Your task to perform on an android device: Open eBay Image 0: 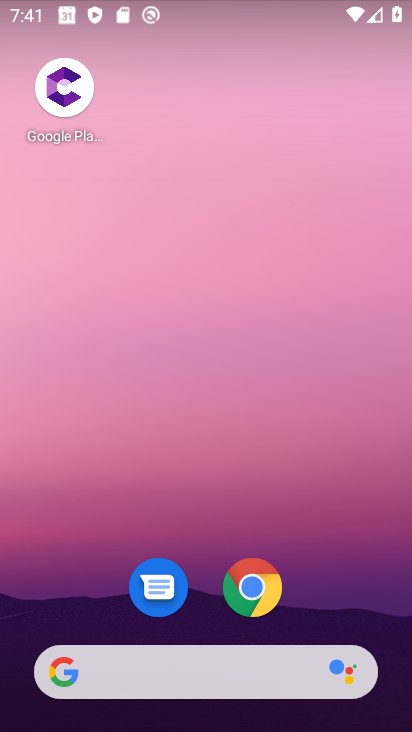
Step 0: drag from (355, 595) to (233, 0)
Your task to perform on an android device: Open eBay Image 1: 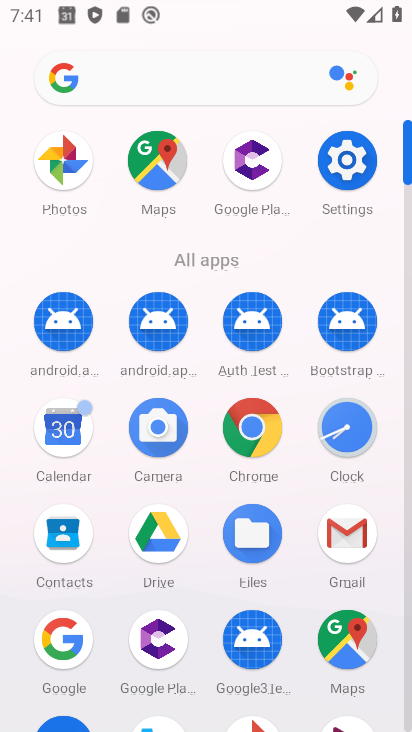
Step 1: drag from (16, 576) to (8, 228)
Your task to perform on an android device: Open eBay Image 2: 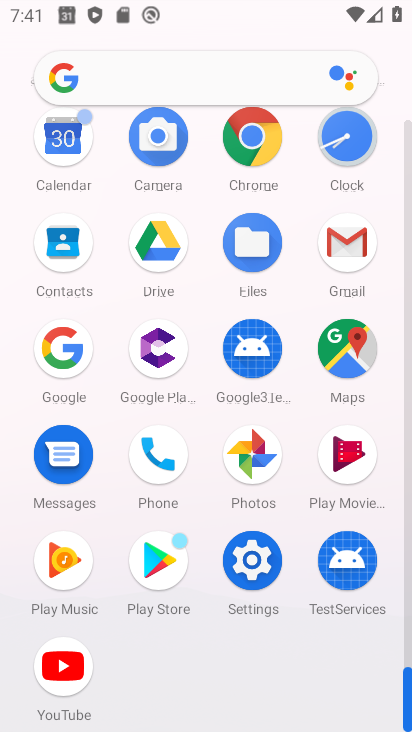
Step 2: click (251, 135)
Your task to perform on an android device: Open eBay Image 3: 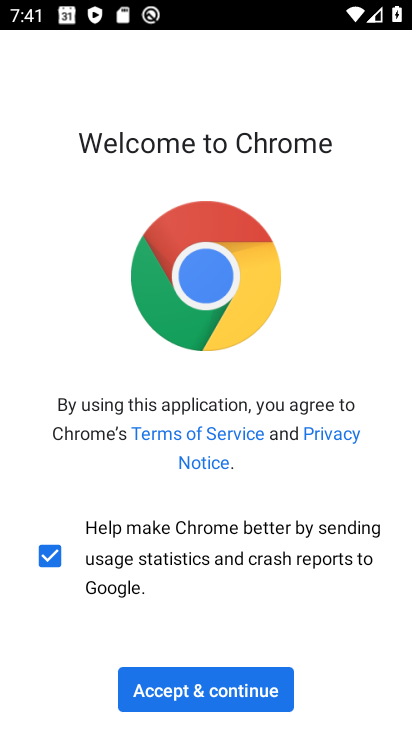
Step 3: click (210, 686)
Your task to perform on an android device: Open eBay Image 4: 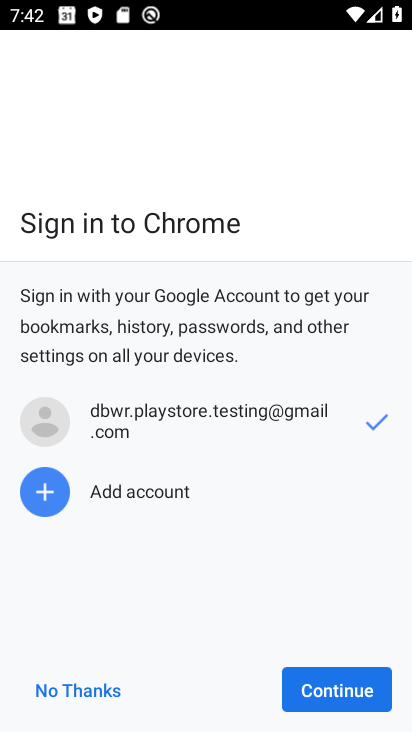
Step 4: click (315, 690)
Your task to perform on an android device: Open eBay Image 5: 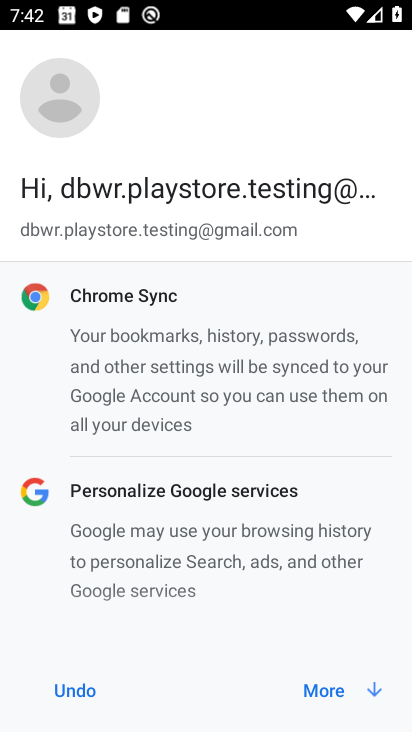
Step 5: click (314, 689)
Your task to perform on an android device: Open eBay Image 6: 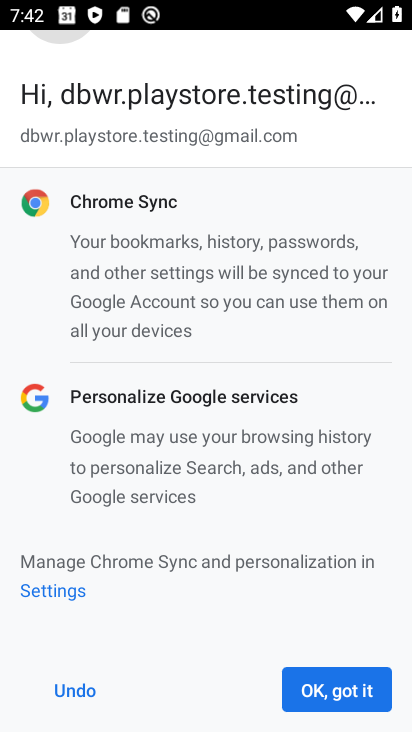
Step 6: click (314, 689)
Your task to perform on an android device: Open eBay Image 7: 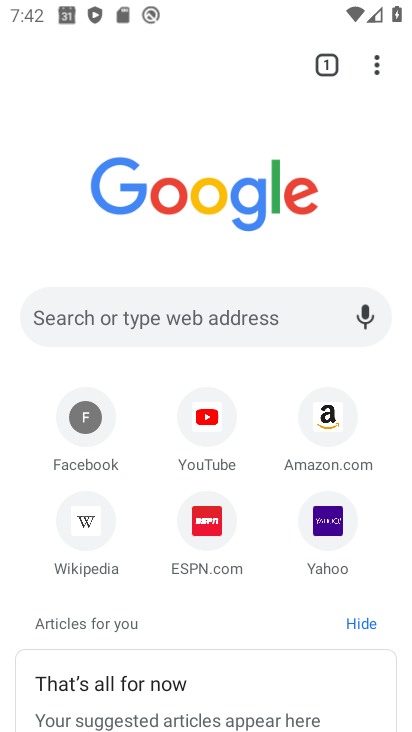
Step 7: click (150, 314)
Your task to perform on an android device: Open eBay Image 8: 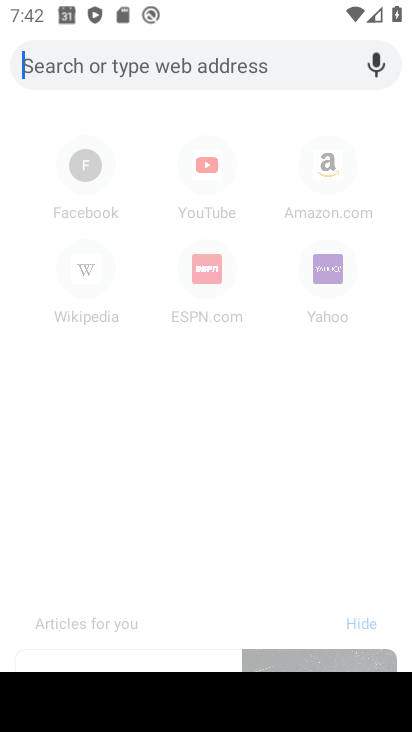
Step 8: type "eBay"
Your task to perform on an android device: Open eBay Image 9: 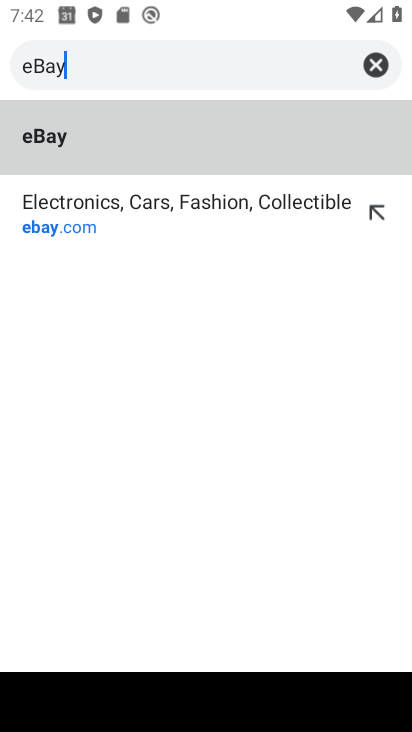
Step 9: type ""
Your task to perform on an android device: Open eBay Image 10: 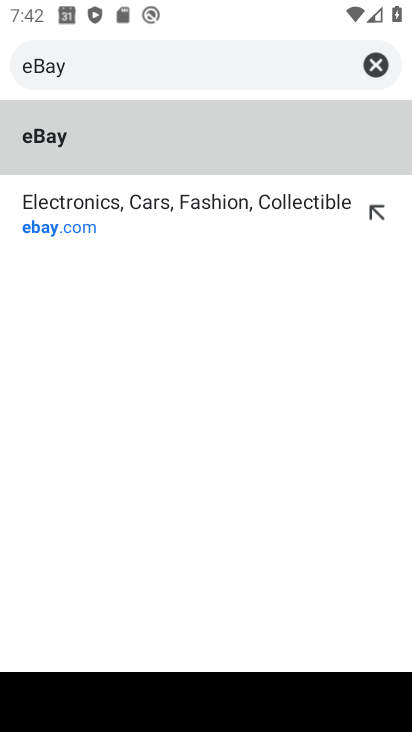
Step 10: click (49, 191)
Your task to perform on an android device: Open eBay Image 11: 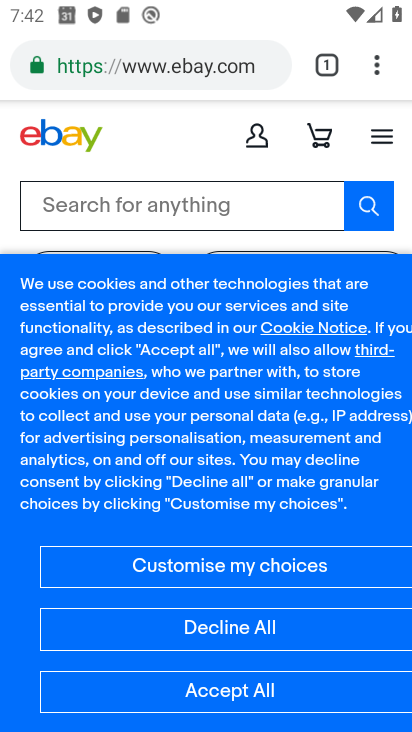
Step 11: task complete